Your task to perform on an android device: turn on translation in the chrome app Image 0: 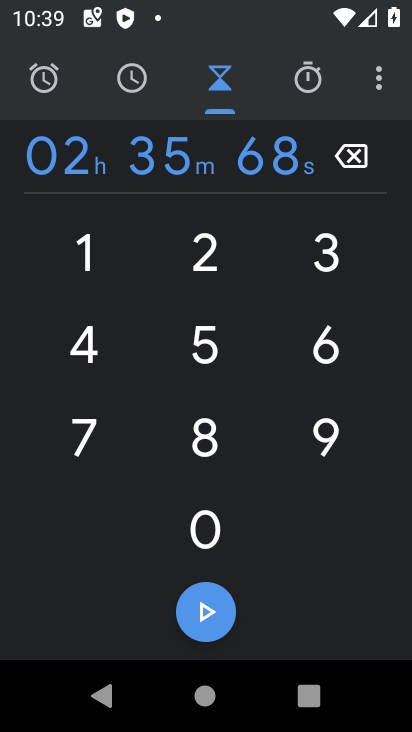
Step 0: press back button
Your task to perform on an android device: turn on translation in the chrome app Image 1: 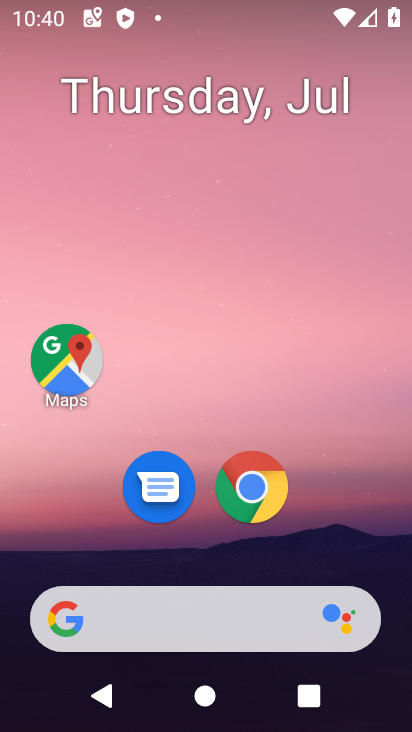
Step 1: click (234, 496)
Your task to perform on an android device: turn on translation in the chrome app Image 2: 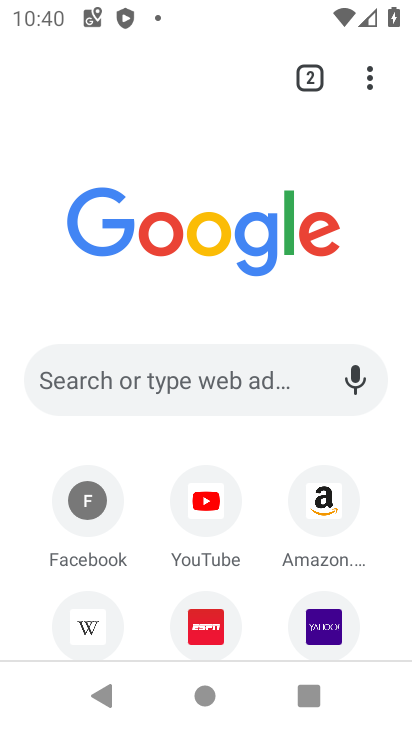
Step 2: drag from (373, 76) to (112, 544)
Your task to perform on an android device: turn on translation in the chrome app Image 3: 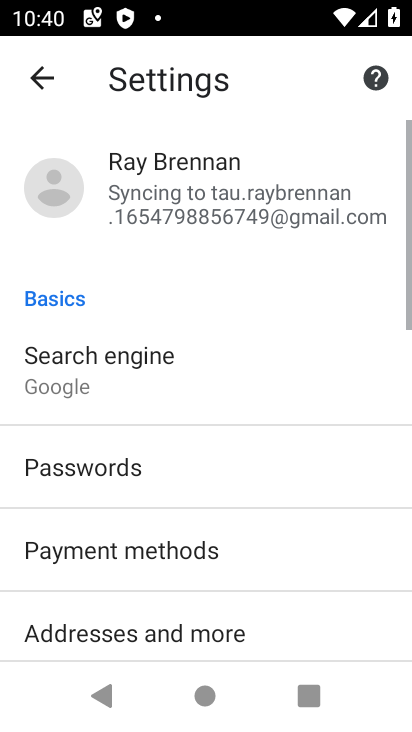
Step 3: drag from (103, 610) to (208, 240)
Your task to perform on an android device: turn on translation in the chrome app Image 4: 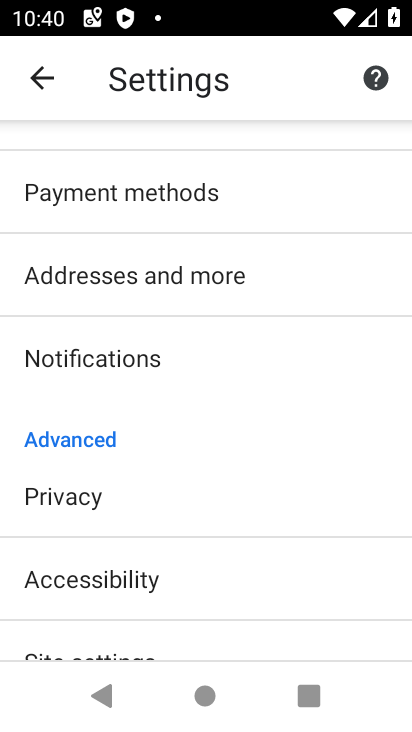
Step 4: drag from (100, 637) to (219, 219)
Your task to perform on an android device: turn on translation in the chrome app Image 5: 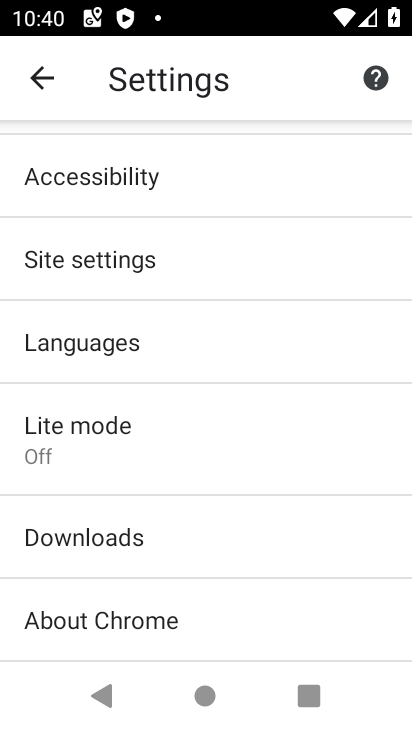
Step 5: click (67, 352)
Your task to perform on an android device: turn on translation in the chrome app Image 6: 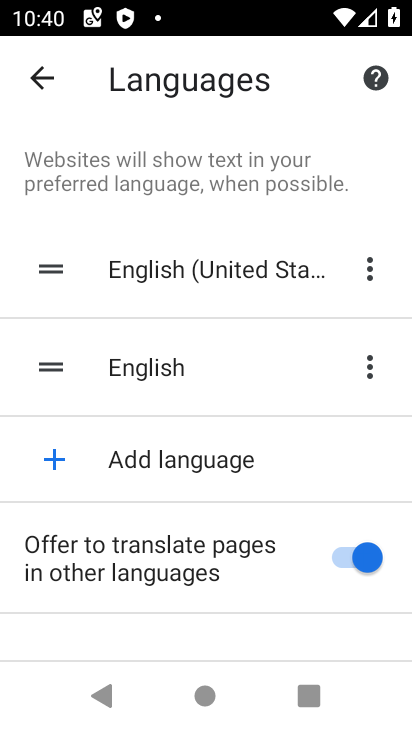
Step 6: task complete